Your task to perform on an android device: Turn off the flashlight Image 0: 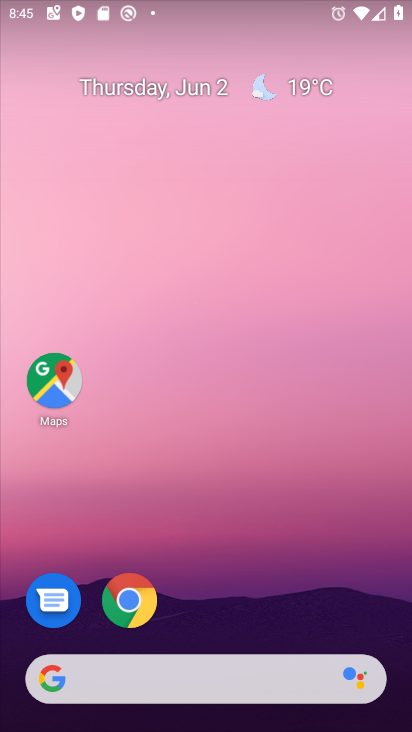
Step 0: drag from (232, 3) to (241, 439)
Your task to perform on an android device: Turn off the flashlight Image 1: 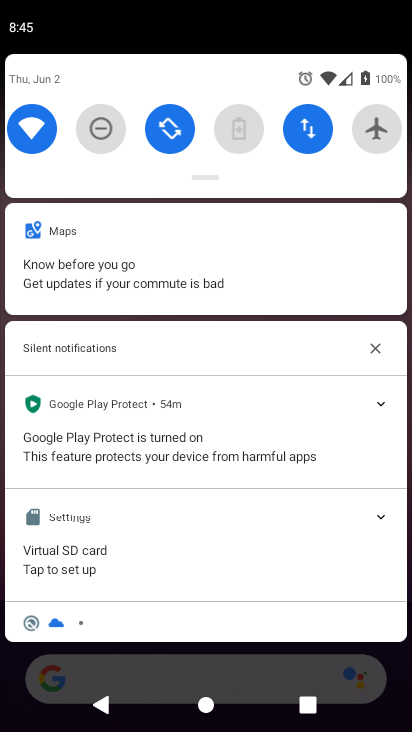
Step 1: drag from (203, 57) to (205, 359)
Your task to perform on an android device: Turn off the flashlight Image 2: 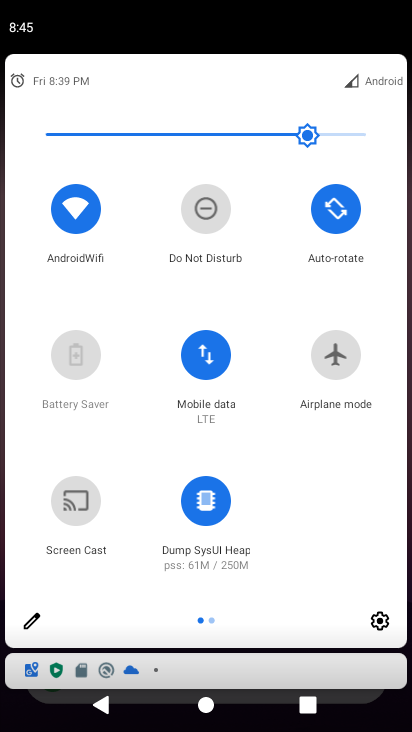
Step 2: click (36, 621)
Your task to perform on an android device: Turn off the flashlight Image 3: 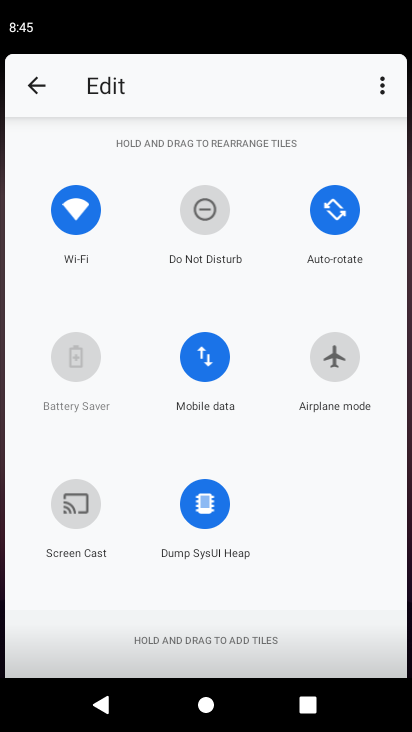
Step 3: task complete